Your task to perform on an android device: Go to calendar. Show me events next week Image 0: 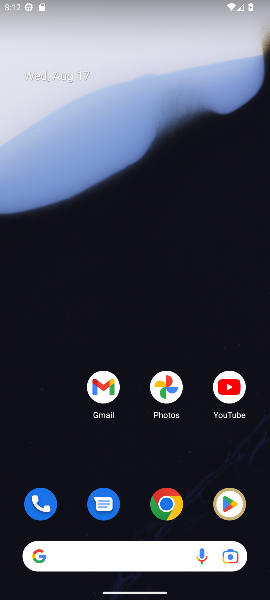
Step 0: drag from (158, 449) to (84, 21)
Your task to perform on an android device: Go to calendar. Show me events next week Image 1: 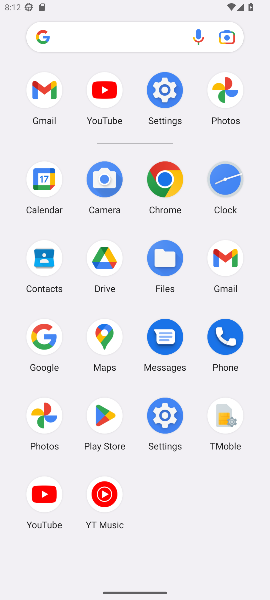
Step 1: click (30, 190)
Your task to perform on an android device: Go to calendar. Show me events next week Image 2: 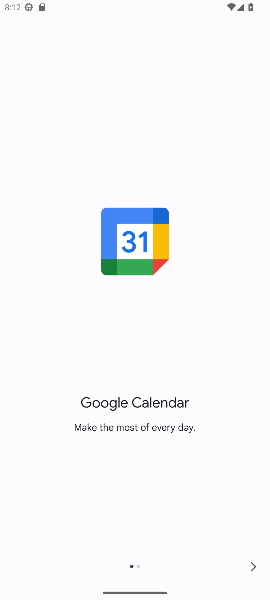
Step 2: click (259, 560)
Your task to perform on an android device: Go to calendar. Show me events next week Image 3: 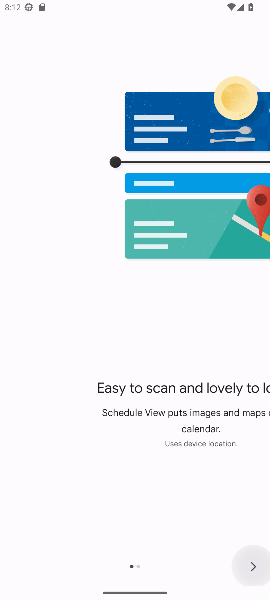
Step 3: click (259, 559)
Your task to perform on an android device: Go to calendar. Show me events next week Image 4: 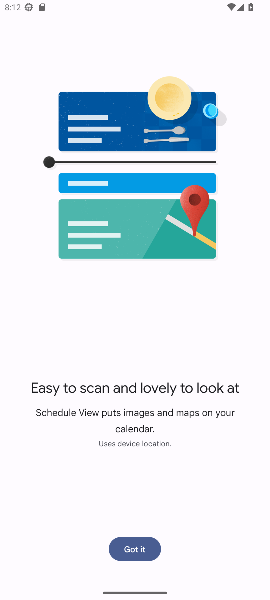
Step 4: click (260, 558)
Your task to perform on an android device: Go to calendar. Show me events next week Image 5: 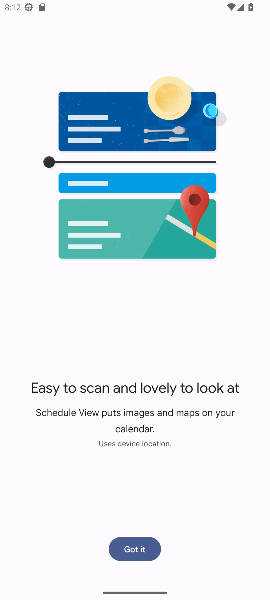
Step 5: click (137, 548)
Your task to perform on an android device: Go to calendar. Show me events next week Image 6: 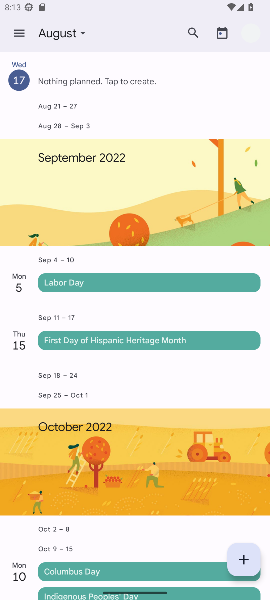
Step 6: click (16, 32)
Your task to perform on an android device: Go to calendar. Show me events next week Image 7: 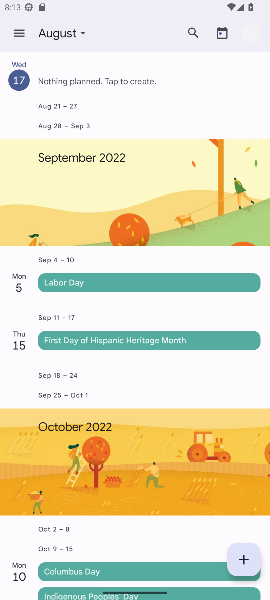
Step 7: click (13, 26)
Your task to perform on an android device: Go to calendar. Show me events next week Image 8: 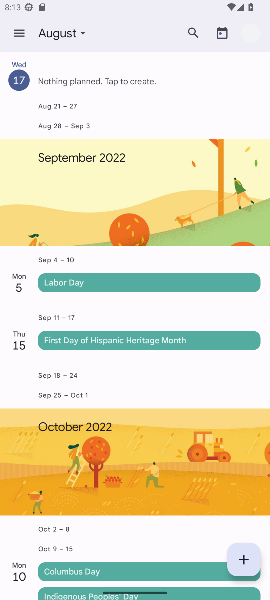
Step 8: click (26, 30)
Your task to perform on an android device: Go to calendar. Show me events next week Image 9: 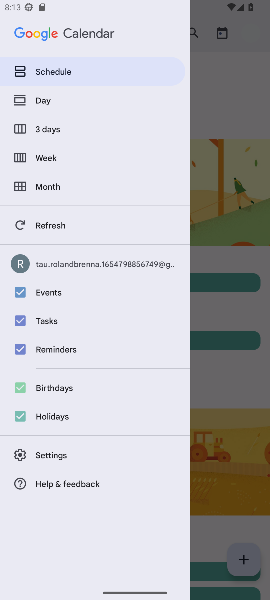
Step 9: click (228, 212)
Your task to perform on an android device: Go to calendar. Show me events next week Image 10: 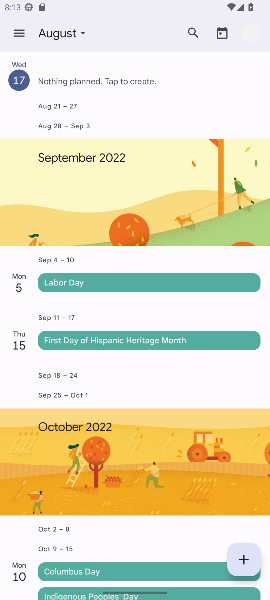
Step 10: task complete